Your task to perform on an android device: snooze an email in the gmail app Image 0: 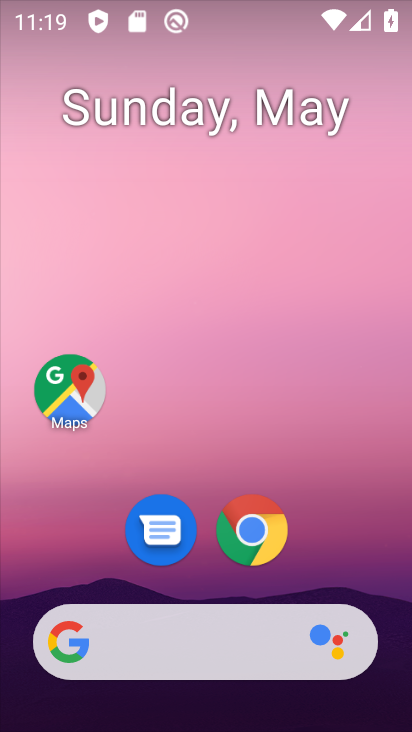
Step 0: drag from (118, 516) to (195, 103)
Your task to perform on an android device: snooze an email in the gmail app Image 1: 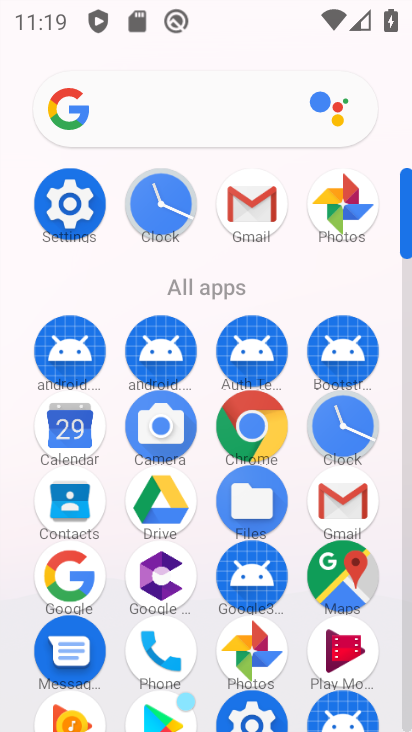
Step 1: click (246, 205)
Your task to perform on an android device: snooze an email in the gmail app Image 2: 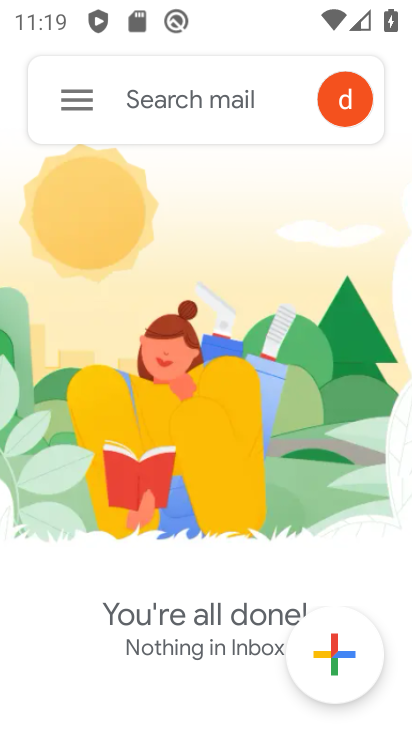
Step 2: click (80, 102)
Your task to perform on an android device: snooze an email in the gmail app Image 3: 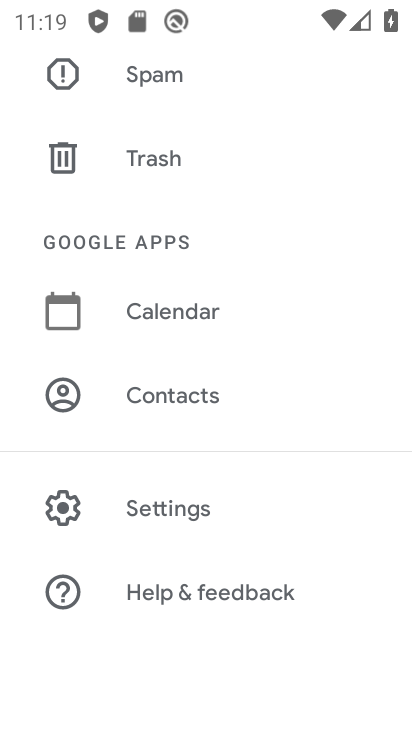
Step 3: drag from (262, 191) to (229, 603)
Your task to perform on an android device: snooze an email in the gmail app Image 4: 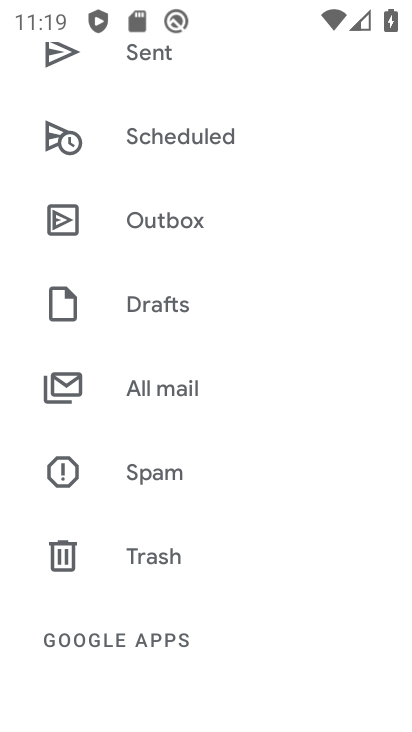
Step 4: drag from (183, 246) to (202, 621)
Your task to perform on an android device: snooze an email in the gmail app Image 5: 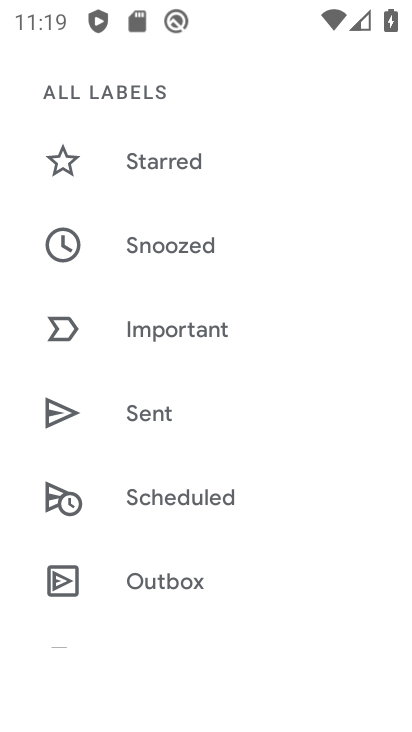
Step 5: drag from (186, 173) to (186, 628)
Your task to perform on an android device: snooze an email in the gmail app Image 6: 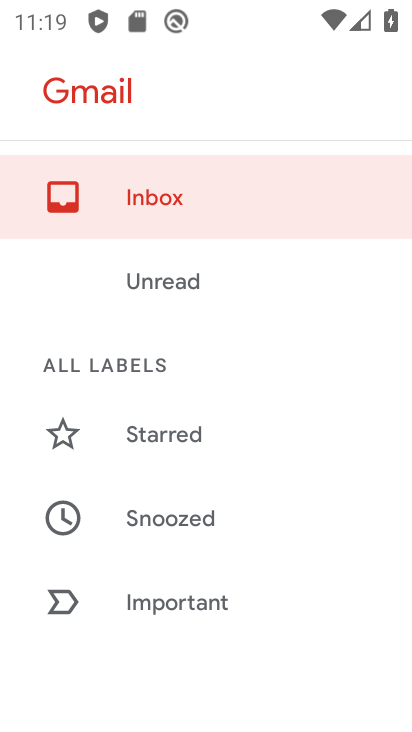
Step 6: drag from (177, 564) to (256, 63)
Your task to perform on an android device: snooze an email in the gmail app Image 7: 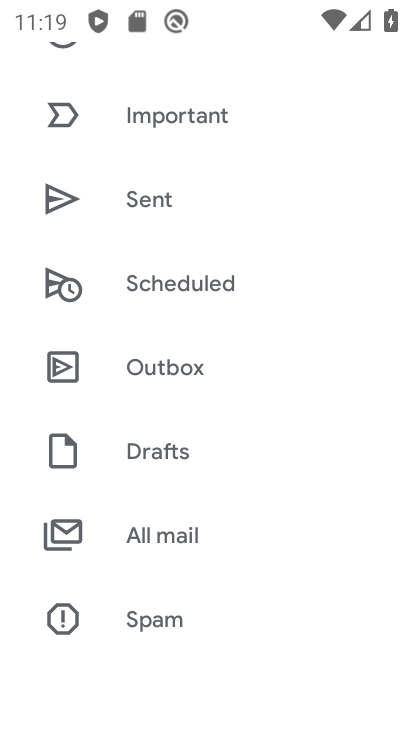
Step 7: click (142, 540)
Your task to perform on an android device: snooze an email in the gmail app Image 8: 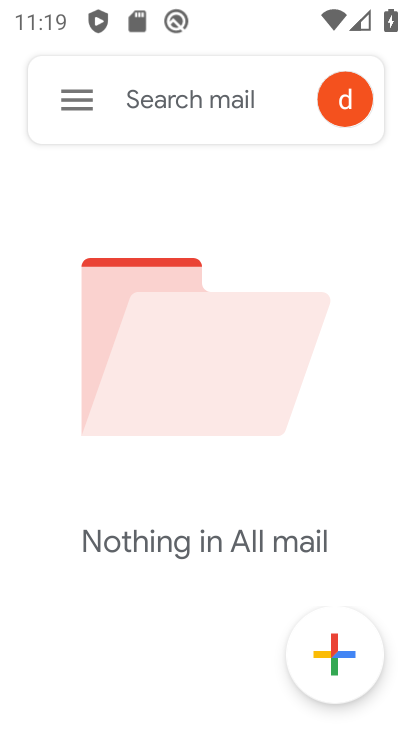
Step 8: task complete